Your task to perform on an android device: Search for Mexican restaurants on Maps Image 0: 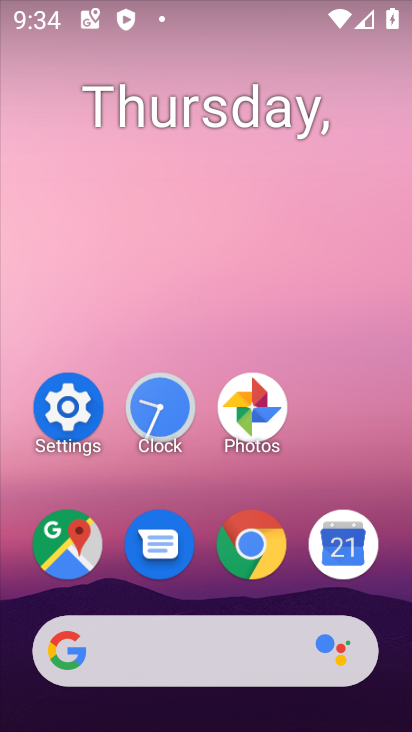
Step 0: click (62, 558)
Your task to perform on an android device: Search for Mexican restaurants on Maps Image 1: 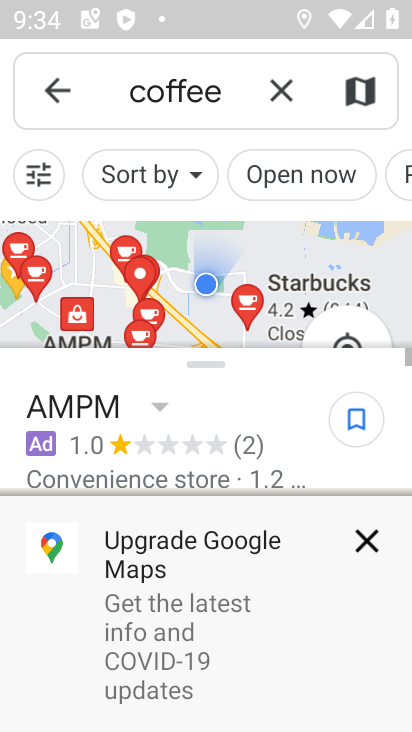
Step 1: click (279, 89)
Your task to perform on an android device: Search for Mexican restaurants on Maps Image 2: 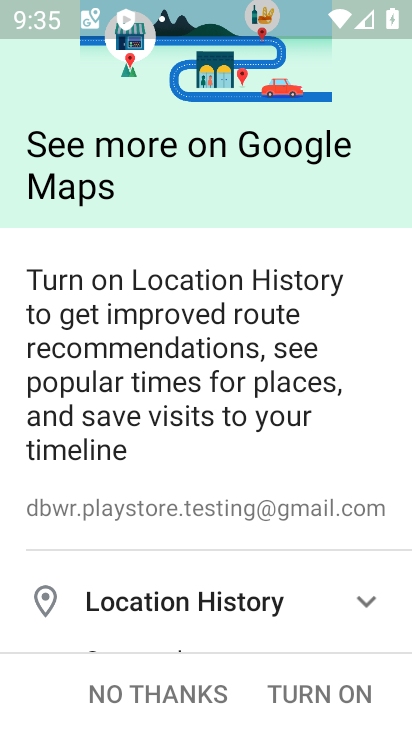
Step 2: click (297, 690)
Your task to perform on an android device: Search for Mexican restaurants on Maps Image 3: 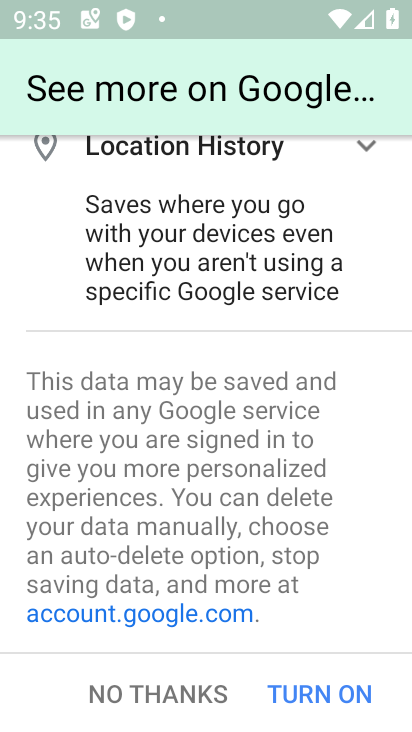
Step 3: click (310, 690)
Your task to perform on an android device: Search for Mexican restaurants on Maps Image 4: 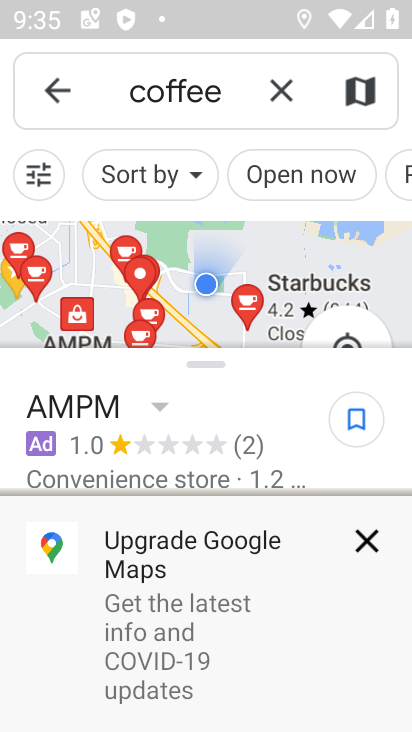
Step 4: click (370, 532)
Your task to perform on an android device: Search for Mexican restaurants on Maps Image 5: 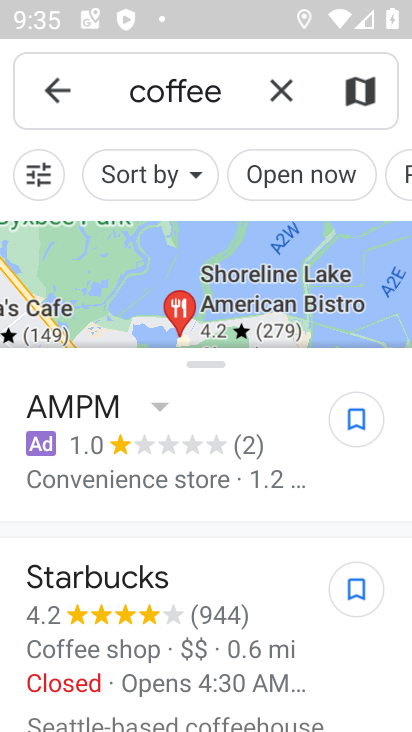
Step 5: click (278, 91)
Your task to perform on an android device: Search for Mexican restaurants on Maps Image 6: 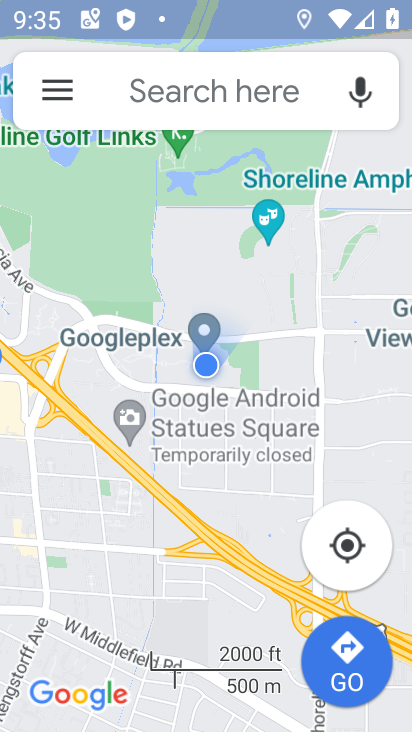
Step 6: click (209, 95)
Your task to perform on an android device: Search for Mexican restaurants on Maps Image 7: 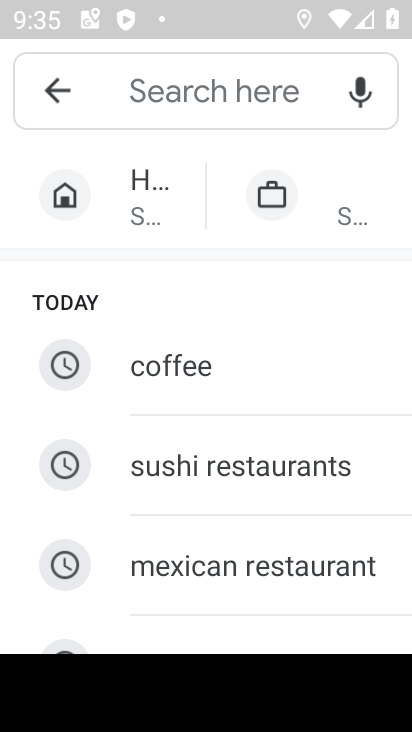
Step 7: click (231, 569)
Your task to perform on an android device: Search for Mexican restaurants on Maps Image 8: 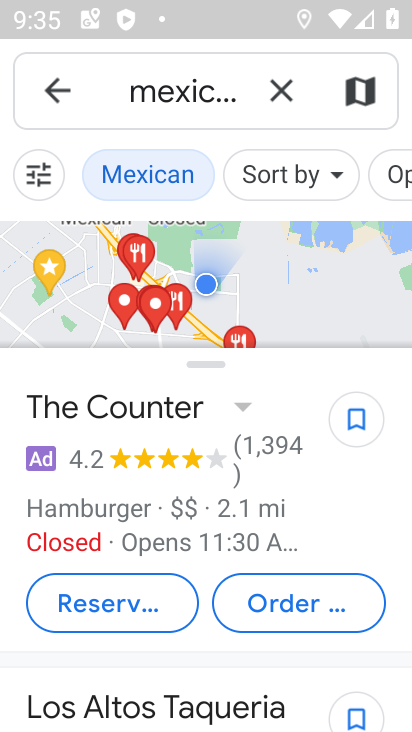
Step 8: task complete